Your task to perform on an android device: When is my next appointment? Image 0: 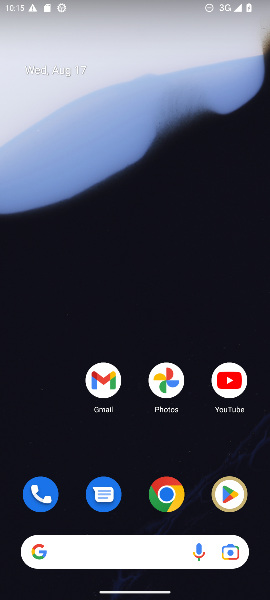
Step 0: drag from (126, 504) to (146, 21)
Your task to perform on an android device: When is my next appointment? Image 1: 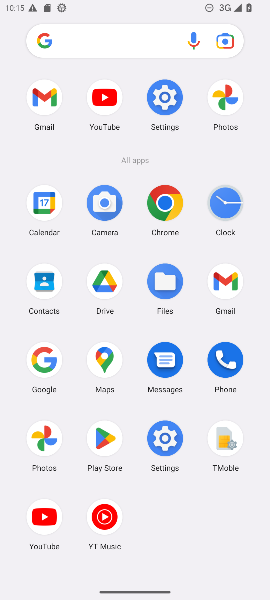
Step 1: click (40, 199)
Your task to perform on an android device: When is my next appointment? Image 2: 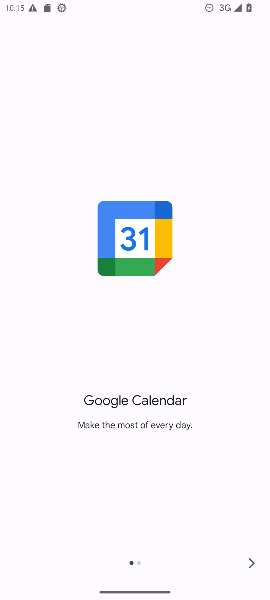
Step 2: click (248, 558)
Your task to perform on an android device: When is my next appointment? Image 3: 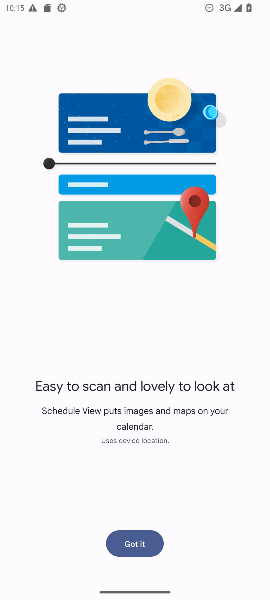
Step 3: click (248, 558)
Your task to perform on an android device: When is my next appointment? Image 4: 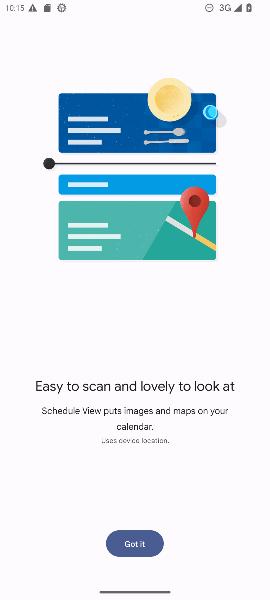
Step 4: click (145, 541)
Your task to perform on an android device: When is my next appointment? Image 5: 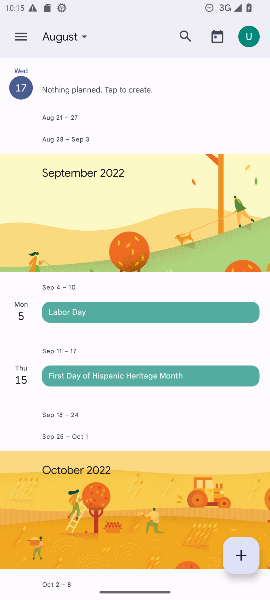
Step 5: click (71, 38)
Your task to perform on an android device: When is my next appointment? Image 6: 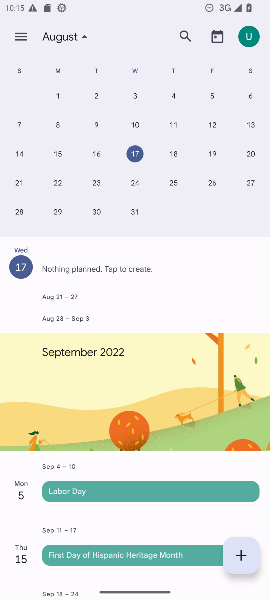
Step 6: click (168, 143)
Your task to perform on an android device: When is my next appointment? Image 7: 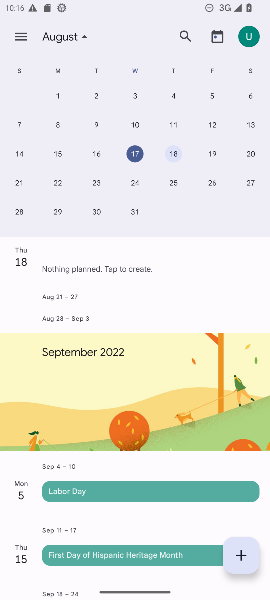
Step 7: task complete